Your task to perform on an android device: Search for Italian restaurants on Maps Image 0: 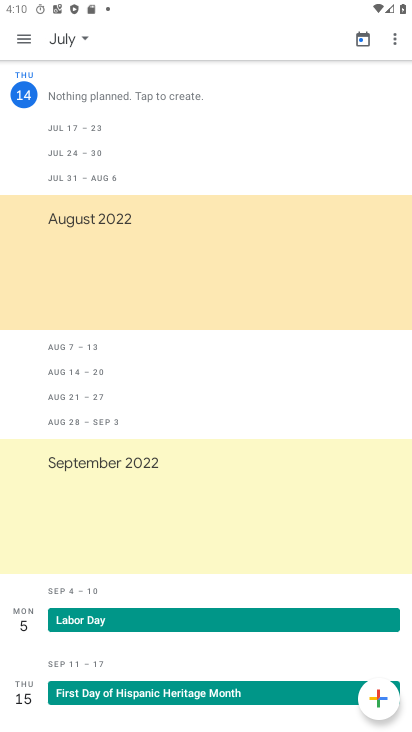
Step 0: press back button
Your task to perform on an android device: Search for Italian restaurants on Maps Image 1: 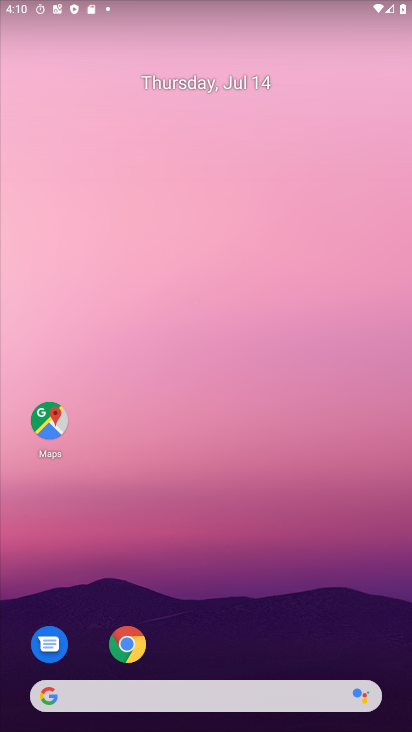
Step 1: click (54, 432)
Your task to perform on an android device: Search for Italian restaurants on Maps Image 2: 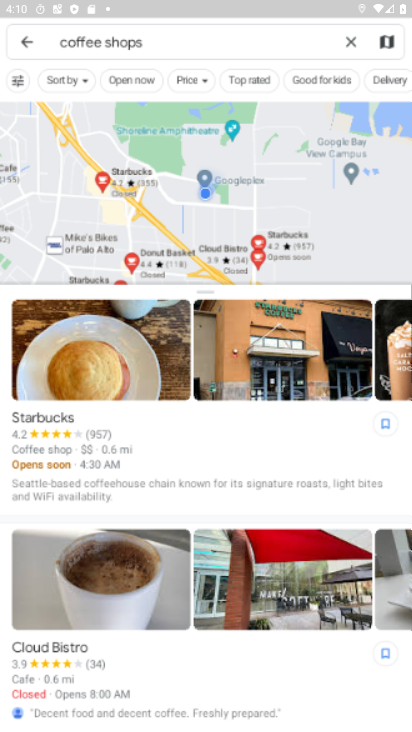
Step 2: click (354, 44)
Your task to perform on an android device: Search for Italian restaurants on Maps Image 3: 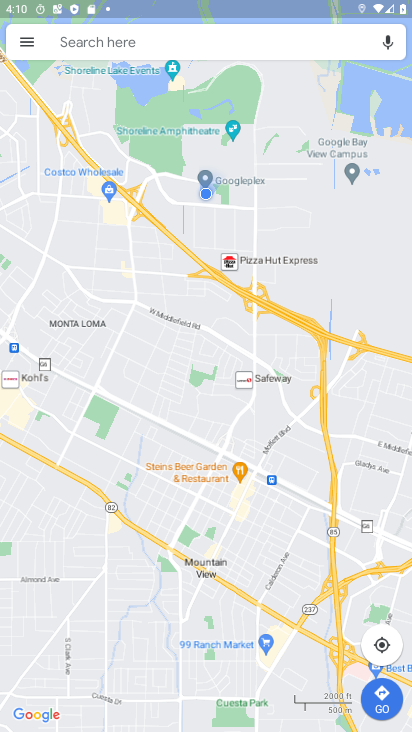
Step 3: click (183, 50)
Your task to perform on an android device: Search for Italian restaurants on Maps Image 4: 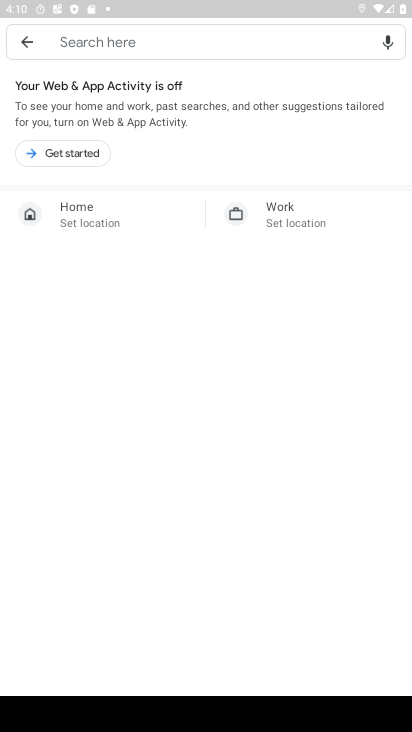
Step 4: type "italian restaurants"
Your task to perform on an android device: Search for Italian restaurants on Maps Image 5: 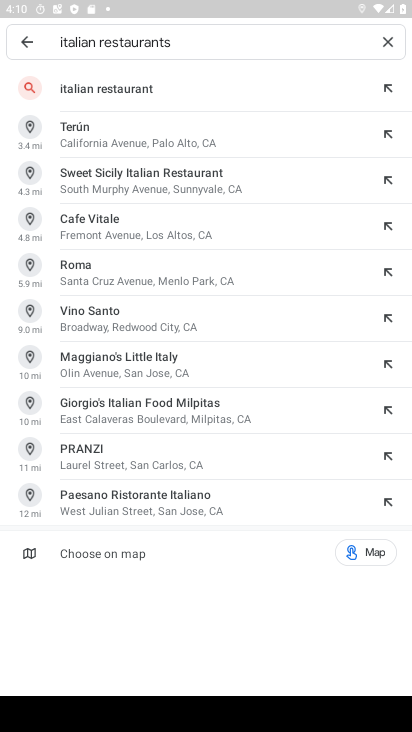
Step 5: click (163, 85)
Your task to perform on an android device: Search for Italian restaurants on Maps Image 6: 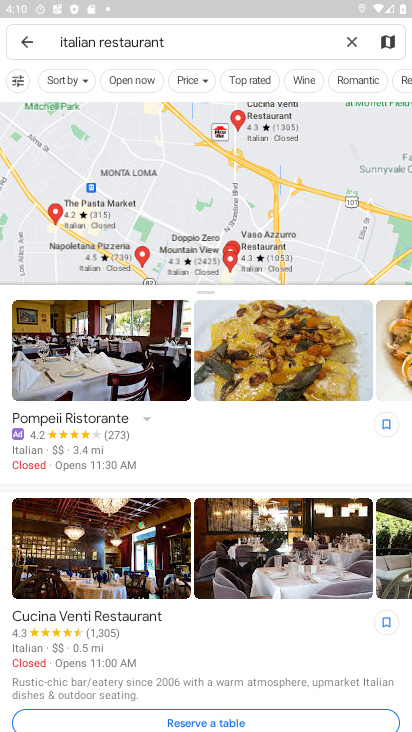
Step 6: task complete